Your task to perform on an android device: turn off picture-in-picture Image 0: 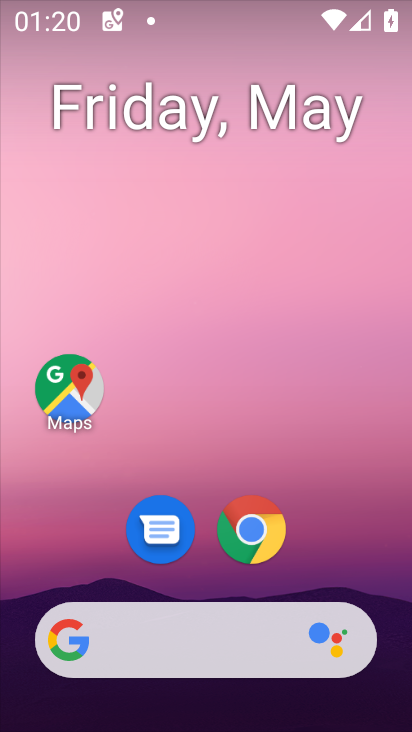
Step 0: drag from (340, 508) to (315, 236)
Your task to perform on an android device: turn off picture-in-picture Image 1: 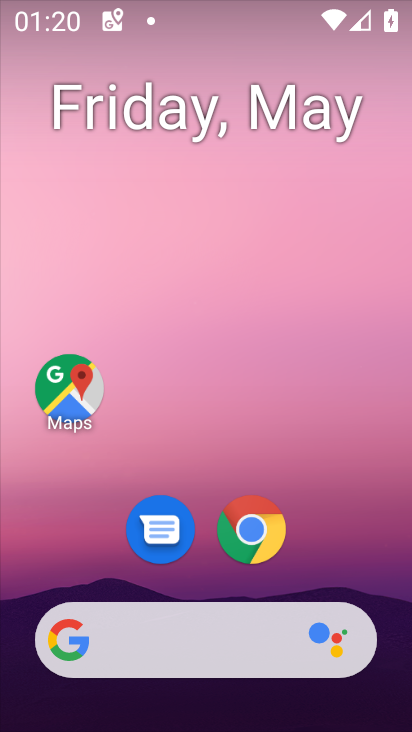
Step 1: drag from (238, 596) to (233, 255)
Your task to perform on an android device: turn off picture-in-picture Image 2: 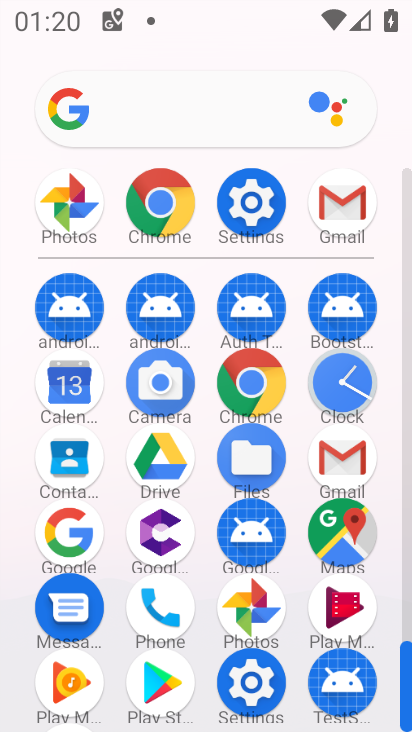
Step 2: click (251, 196)
Your task to perform on an android device: turn off picture-in-picture Image 3: 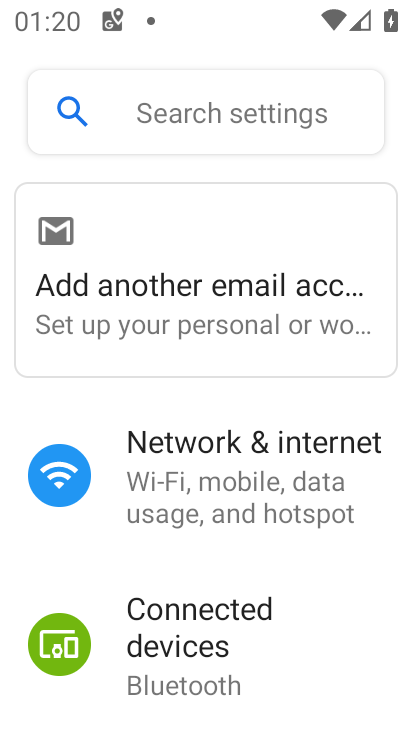
Step 3: drag from (284, 582) to (268, 172)
Your task to perform on an android device: turn off picture-in-picture Image 4: 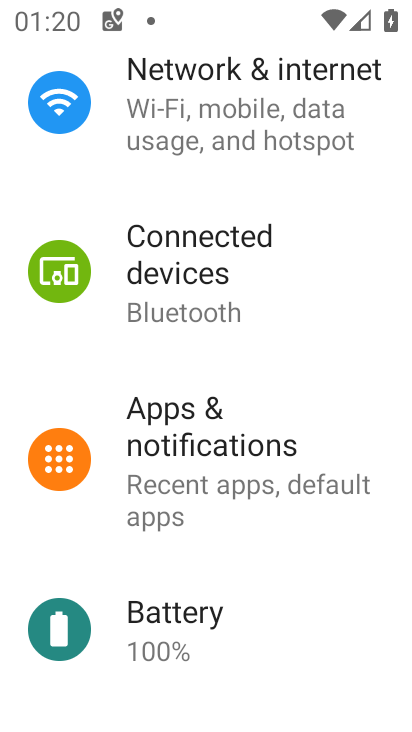
Step 4: click (235, 411)
Your task to perform on an android device: turn off picture-in-picture Image 5: 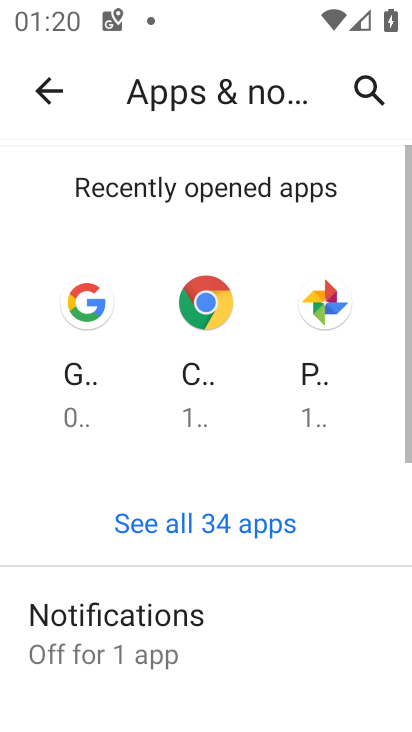
Step 5: drag from (190, 628) to (212, 123)
Your task to perform on an android device: turn off picture-in-picture Image 6: 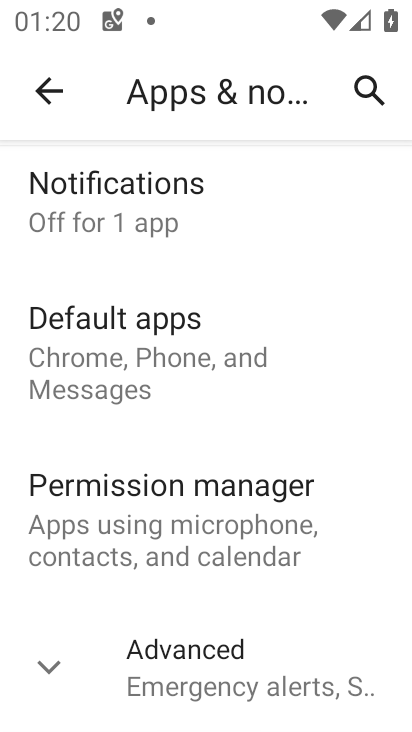
Step 6: click (162, 670)
Your task to perform on an android device: turn off picture-in-picture Image 7: 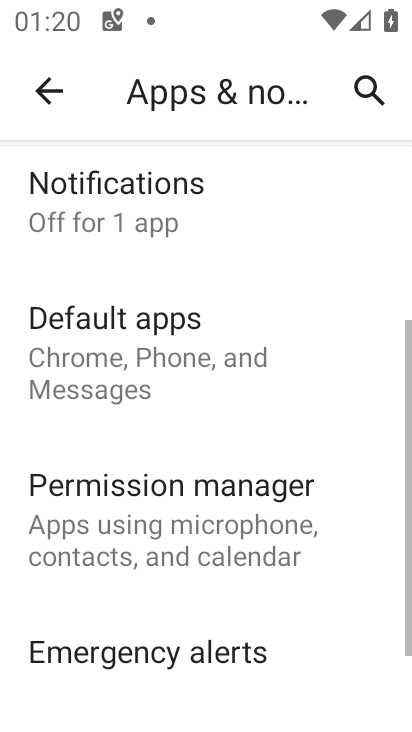
Step 7: drag from (185, 669) to (225, 132)
Your task to perform on an android device: turn off picture-in-picture Image 8: 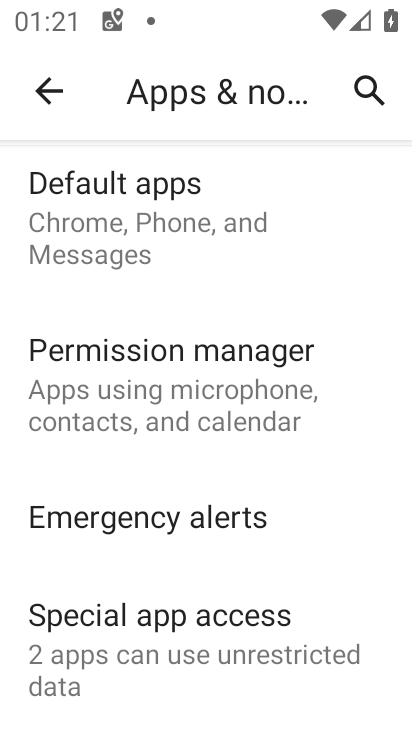
Step 8: click (138, 642)
Your task to perform on an android device: turn off picture-in-picture Image 9: 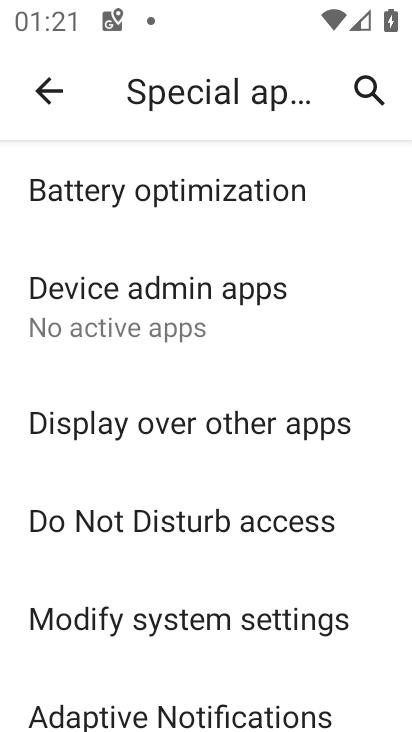
Step 9: drag from (198, 597) to (194, 211)
Your task to perform on an android device: turn off picture-in-picture Image 10: 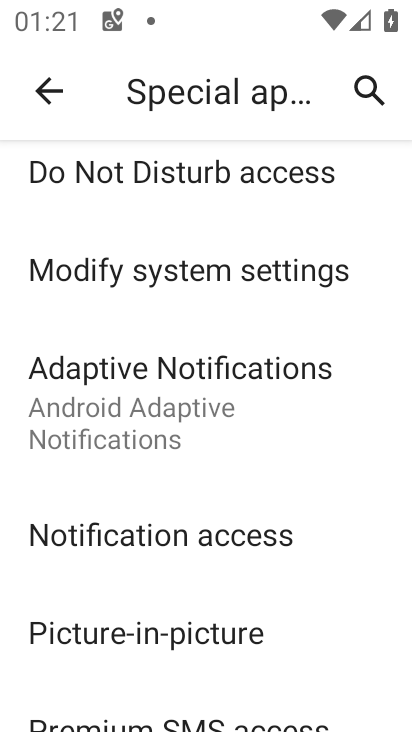
Step 10: drag from (168, 638) to (186, 518)
Your task to perform on an android device: turn off picture-in-picture Image 11: 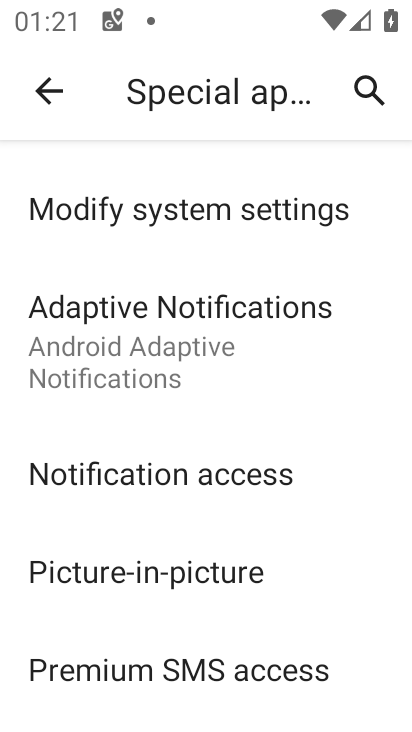
Step 11: click (103, 586)
Your task to perform on an android device: turn off picture-in-picture Image 12: 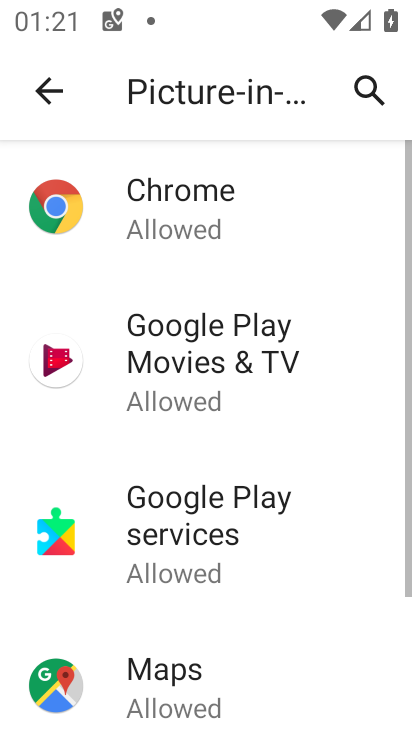
Step 12: drag from (239, 604) to (247, 187)
Your task to perform on an android device: turn off picture-in-picture Image 13: 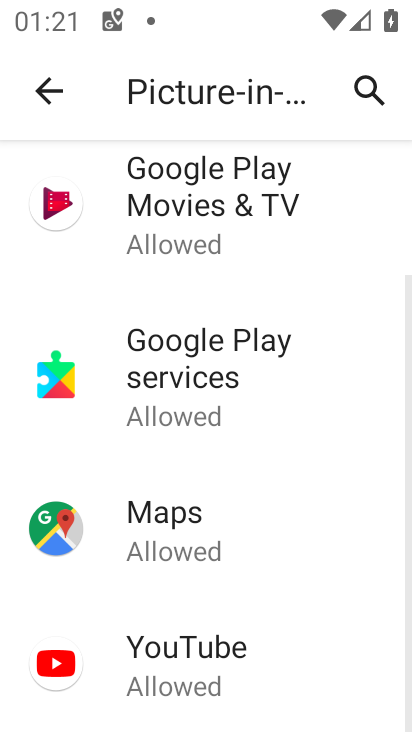
Step 13: click (179, 662)
Your task to perform on an android device: turn off picture-in-picture Image 14: 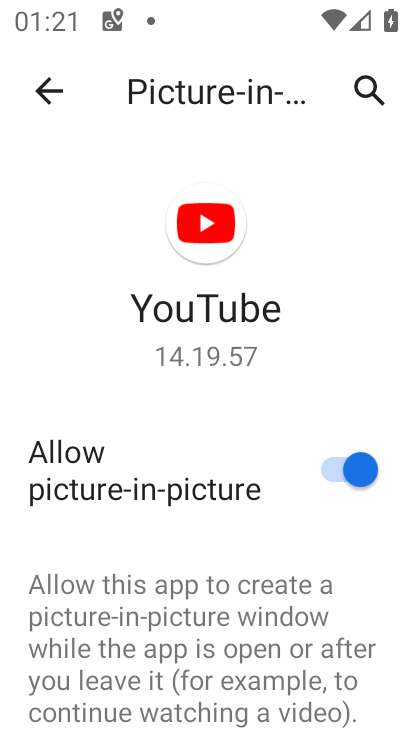
Step 14: click (312, 470)
Your task to perform on an android device: turn off picture-in-picture Image 15: 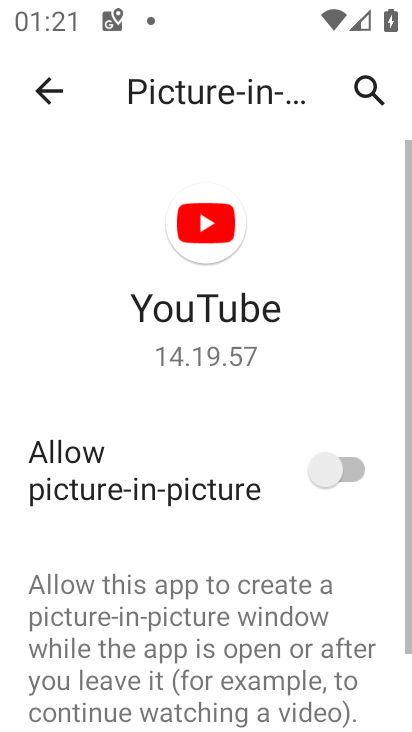
Step 15: task complete